Your task to perform on an android device: change notification settings in the gmail app Image 0: 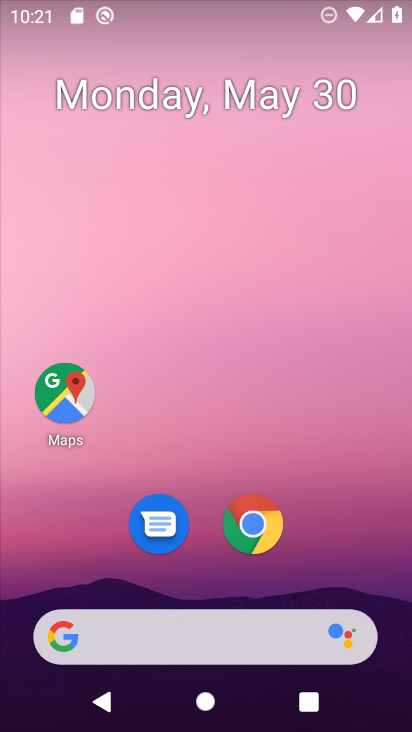
Step 0: drag from (324, 514) to (275, 19)
Your task to perform on an android device: change notification settings in the gmail app Image 1: 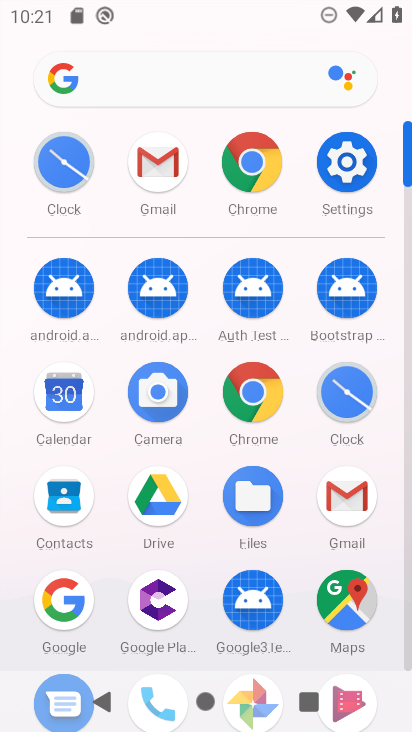
Step 1: click (173, 157)
Your task to perform on an android device: change notification settings in the gmail app Image 2: 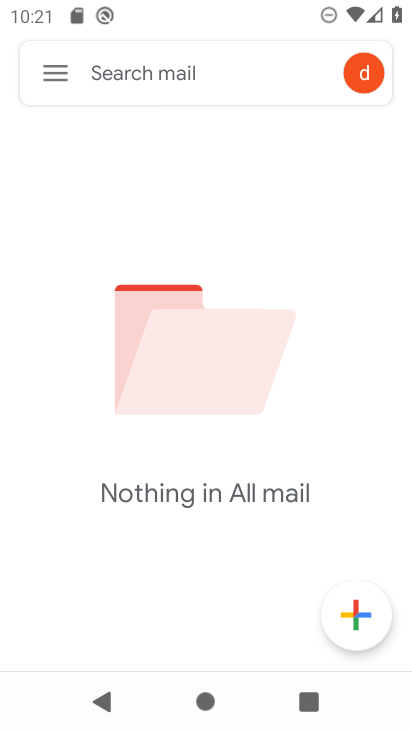
Step 2: click (53, 63)
Your task to perform on an android device: change notification settings in the gmail app Image 3: 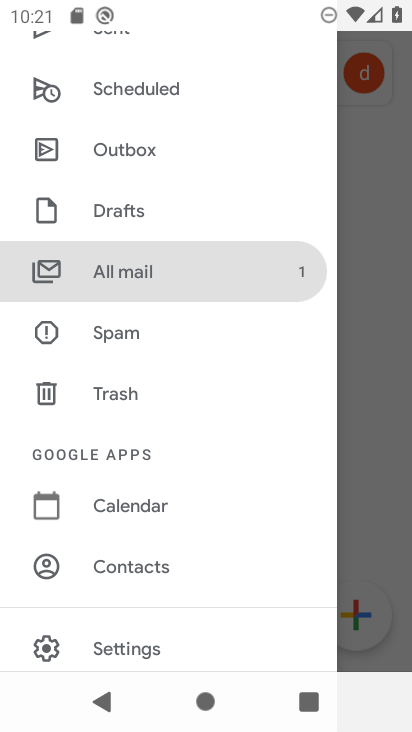
Step 3: click (175, 629)
Your task to perform on an android device: change notification settings in the gmail app Image 4: 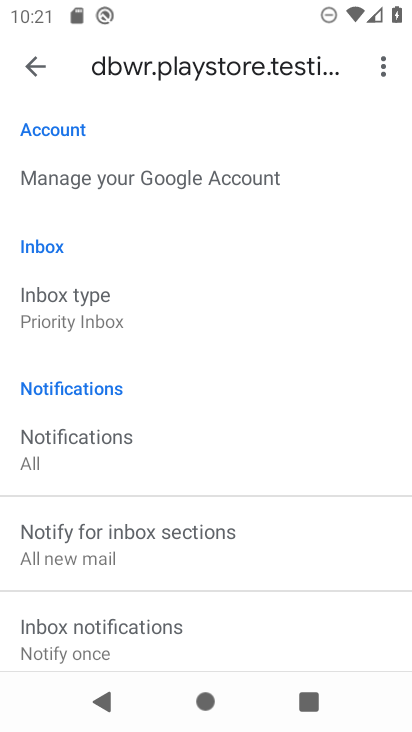
Step 4: drag from (257, 539) to (240, 192)
Your task to perform on an android device: change notification settings in the gmail app Image 5: 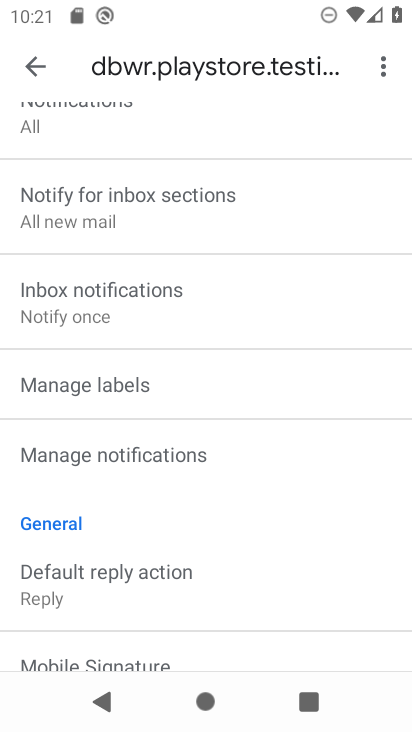
Step 5: click (197, 450)
Your task to perform on an android device: change notification settings in the gmail app Image 6: 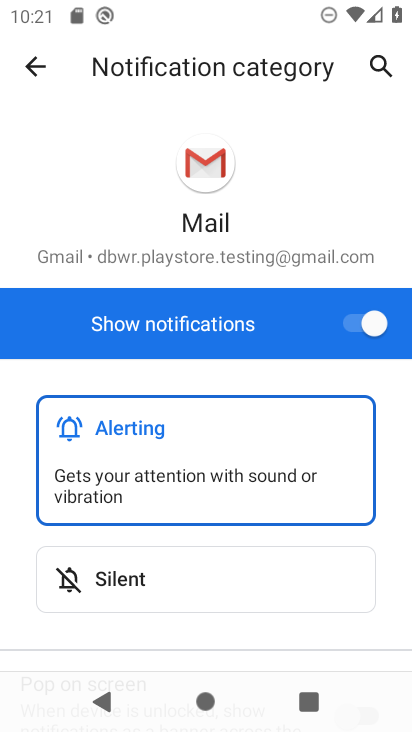
Step 6: click (369, 330)
Your task to perform on an android device: change notification settings in the gmail app Image 7: 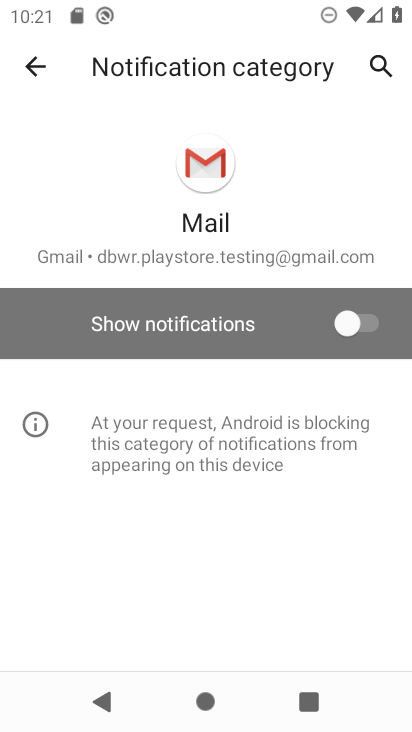
Step 7: task complete